Your task to perform on an android device: Open Youtube and go to the subscriptions tab Image 0: 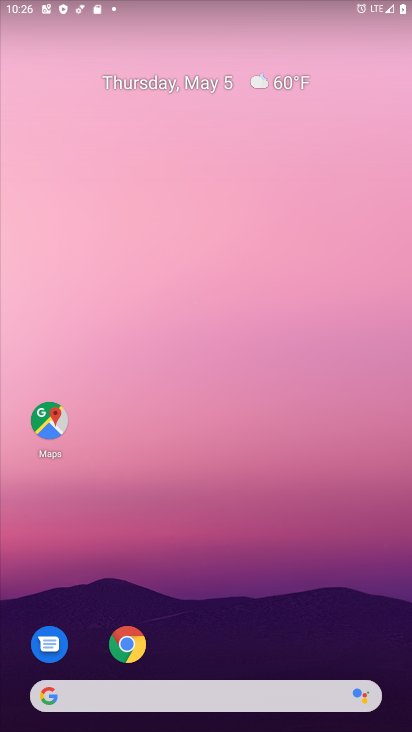
Step 0: drag from (215, 644) to (219, 226)
Your task to perform on an android device: Open Youtube and go to the subscriptions tab Image 1: 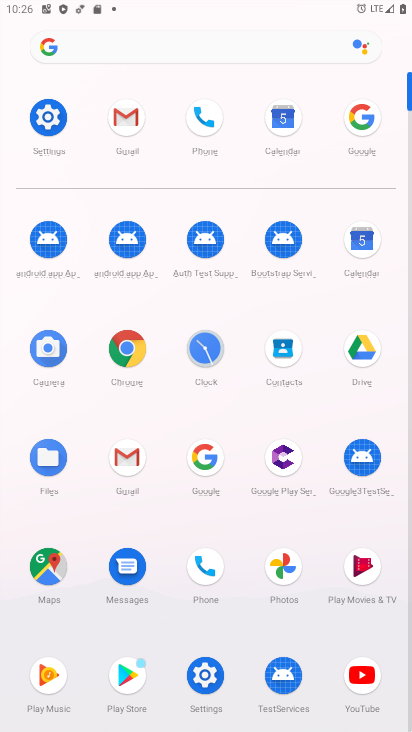
Step 1: click (368, 681)
Your task to perform on an android device: Open Youtube and go to the subscriptions tab Image 2: 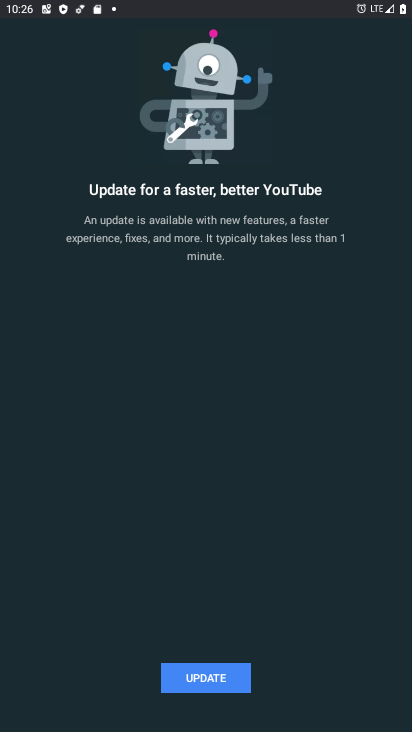
Step 2: click (212, 685)
Your task to perform on an android device: Open Youtube and go to the subscriptions tab Image 3: 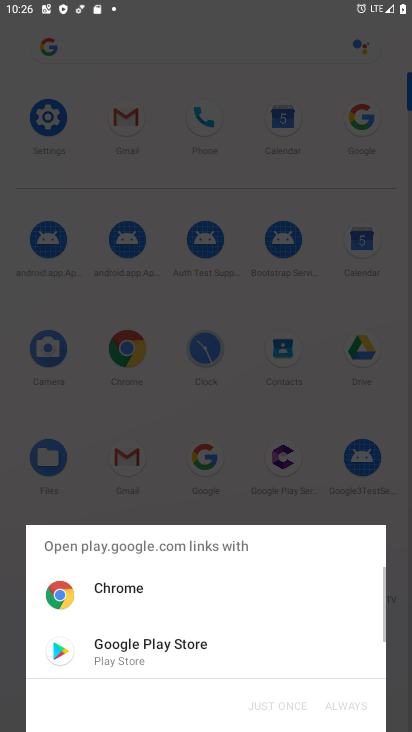
Step 3: click (176, 644)
Your task to perform on an android device: Open Youtube and go to the subscriptions tab Image 4: 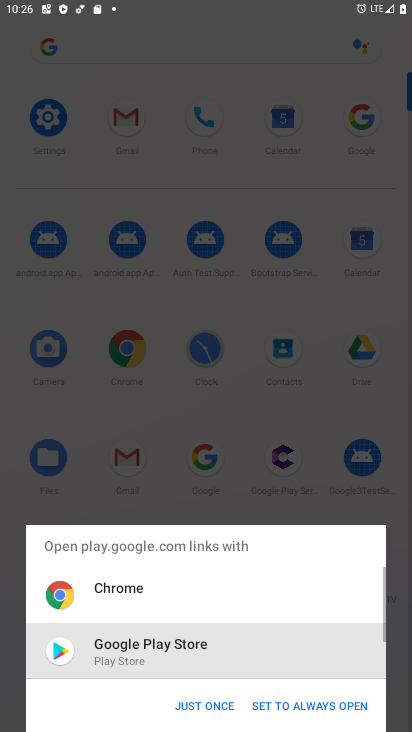
Step 4: click (199, 705)
Your task to perform on an android device: Open Youtube and go to the subscriptions tab Image 5: 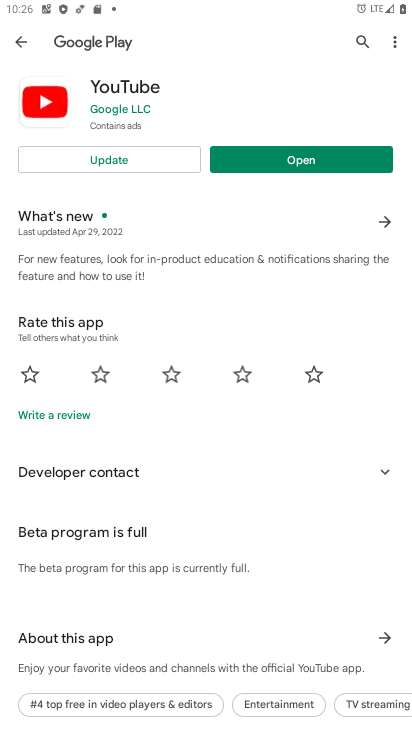
Step 5: click (138, 159)
Your task to perform on an android device: Open Youtube and go to the subscriptions tab Image 6: 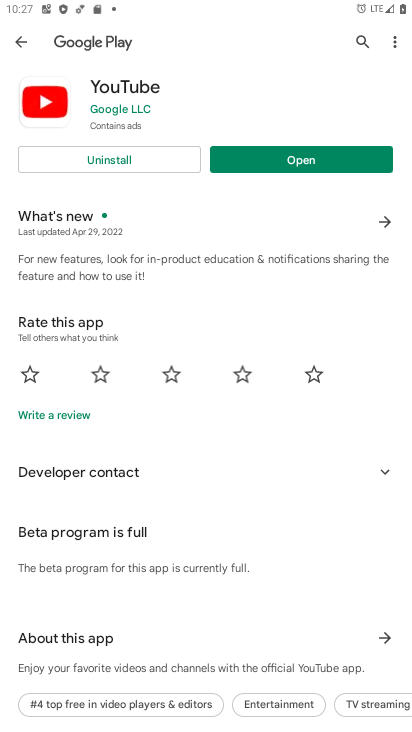
Step 6: click (245, 163)
Your task to perform on an android device: Open Youtube and go to the subscriptions tab Image 7: 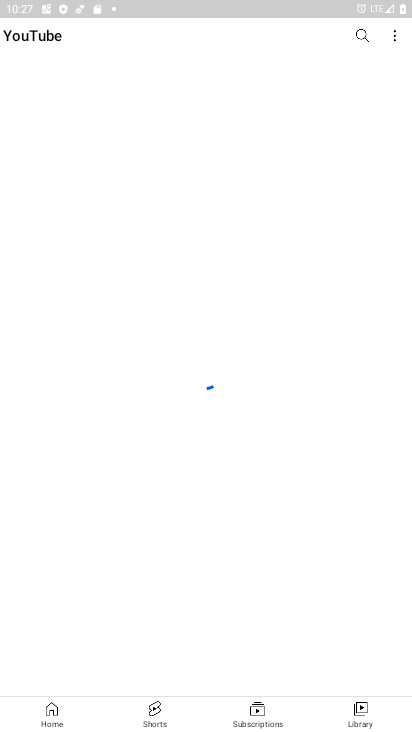
Step 7: click (262, 721)
Your task to perform on an android device: Open Youtube and go to the subscriptions tab Image 8: 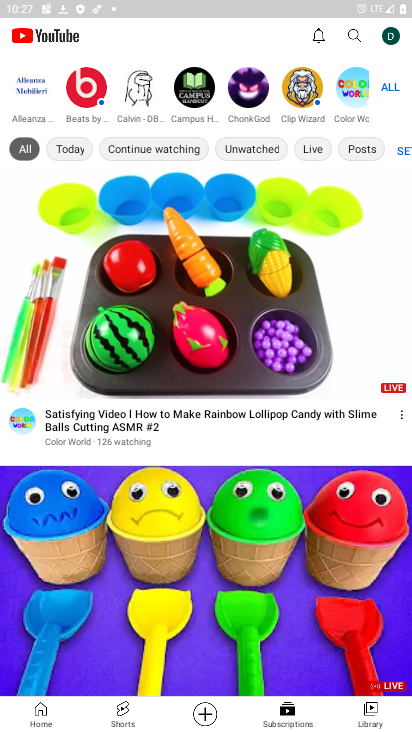
Step 8: task complete